Your task to perform on an android device: turn on translation in the chrome app Image 0: 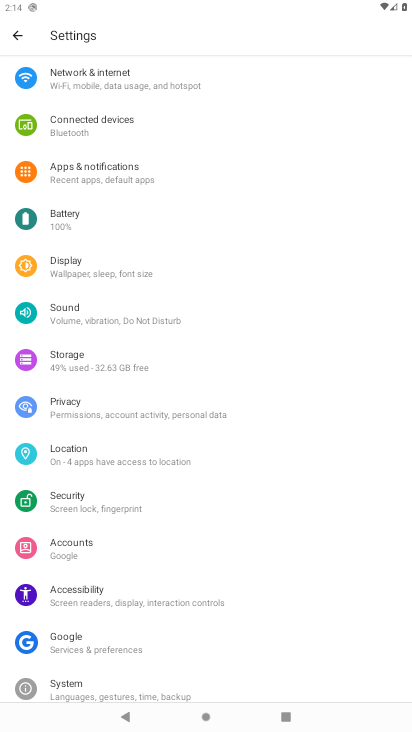
Step 0: press home button
Your task to perform on an android device: turn on translation in the chrome app Image 1: 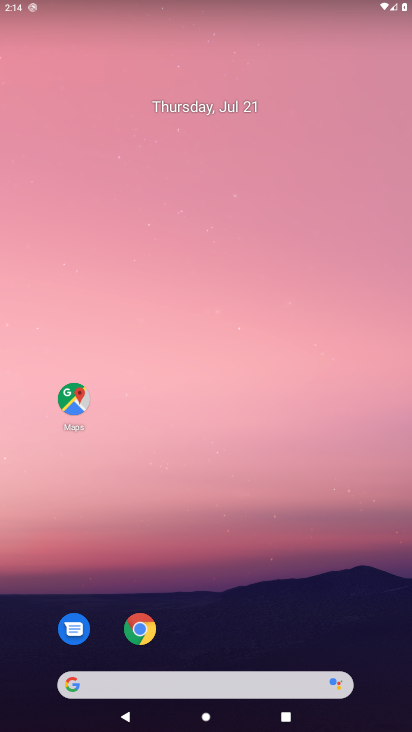
Step 1: click (155, 628)
Your task to perform on an android device: turn on translation in the chrome app Image 2: 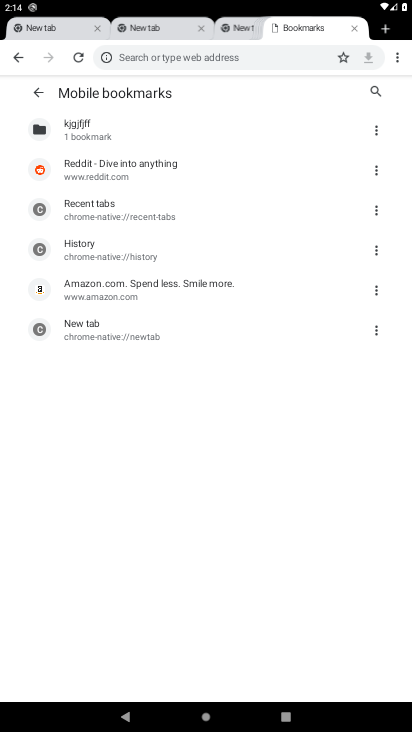
Step 2: press home button
Your task to perform on an android device: turn on translation in the chrome app Image 3: 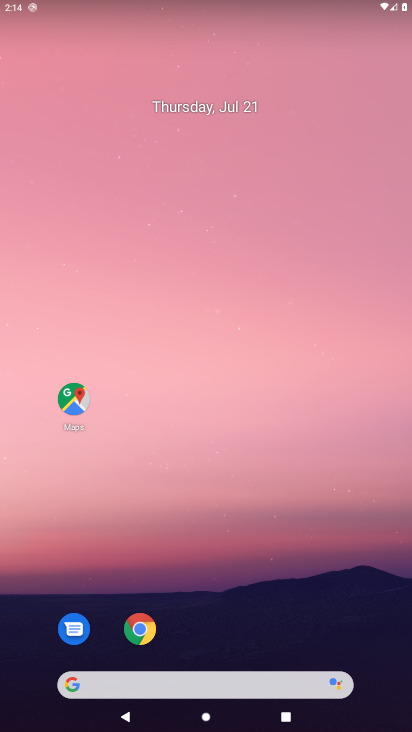
Step 3: click (147, 643)
Your task to perform on an android device: turn on translation in the chrome app Image 4: 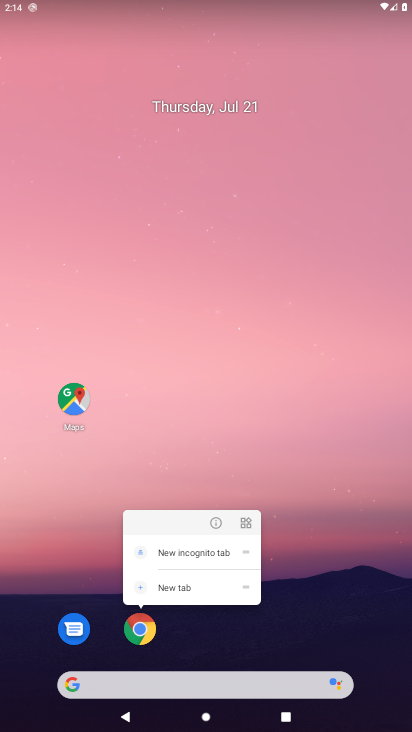
Step 4: click (153, 631)
Your task to perform on an android device: turn on translation in the chrome app Image 5: 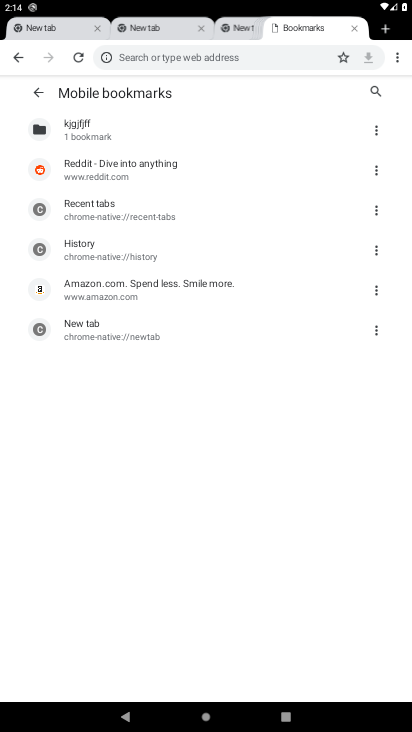
Step 5: click (398, 58)
Your task to perform on an android device: turn on translation in the chrome app Image 6: 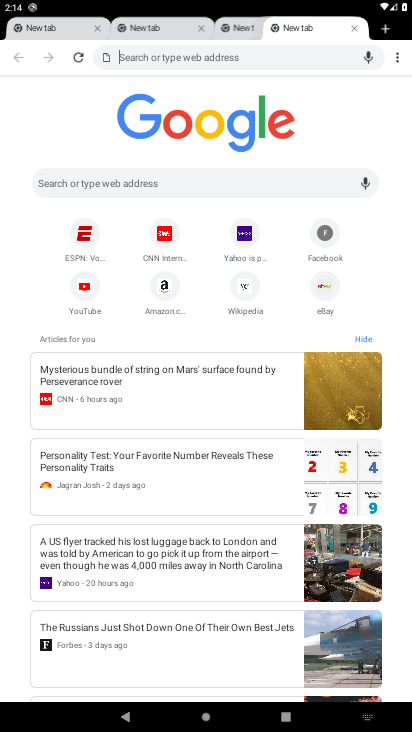
Step 6: click (396, 60)
Your task to perform on an android device: turn on translation in the chrome app Image 7: 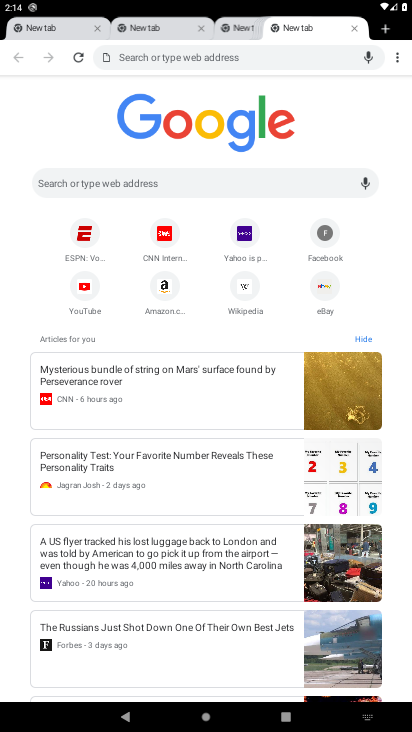
Step 7: task complete